Your task to perform on an android device: Open Google Maps and go to "Timeline" Image 0: 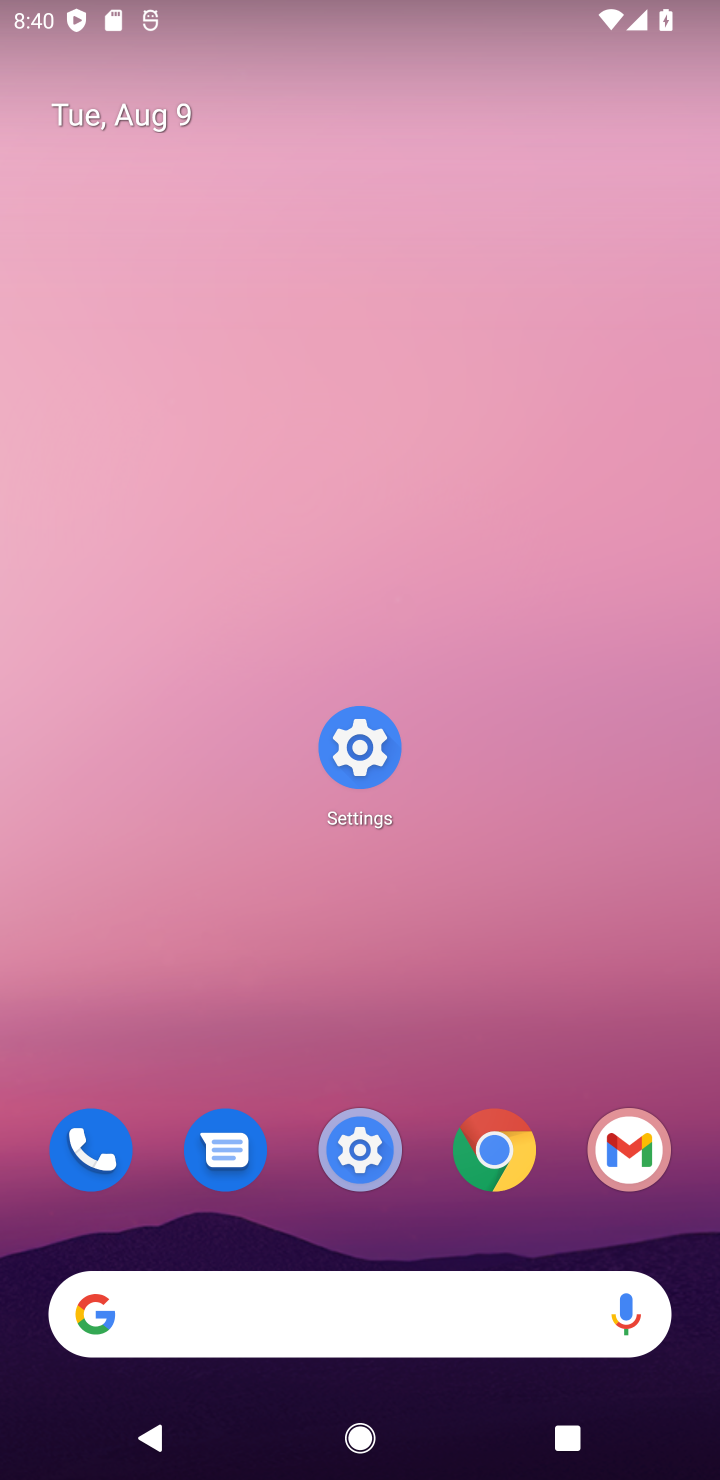
Step 0: press home button
Your task to perform on an android device: Open Google Maps and go to "Timeline" Image 1: 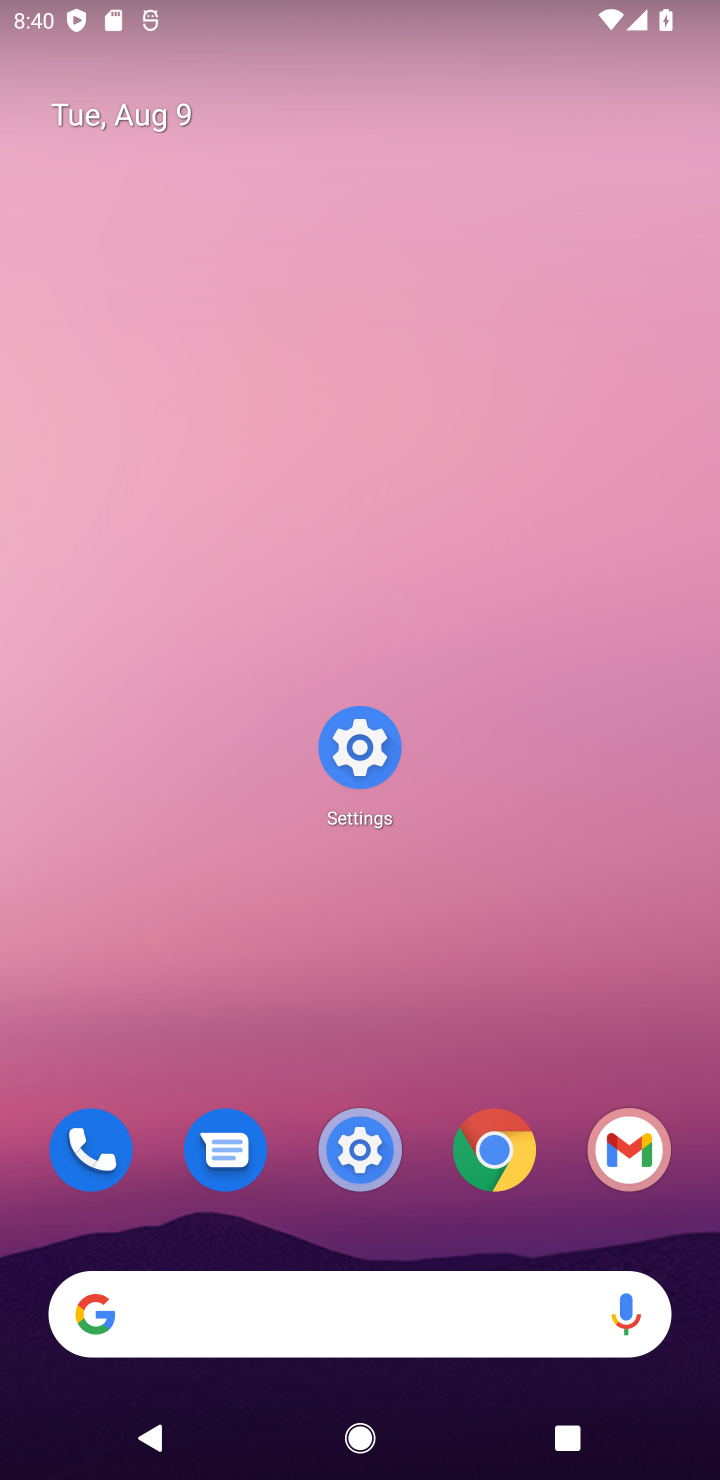
Step 1: drag from (299, 1321) to (595, 236)
Your task to perform on an android device: Open Google Maps and go to "Timeline" Image 2: 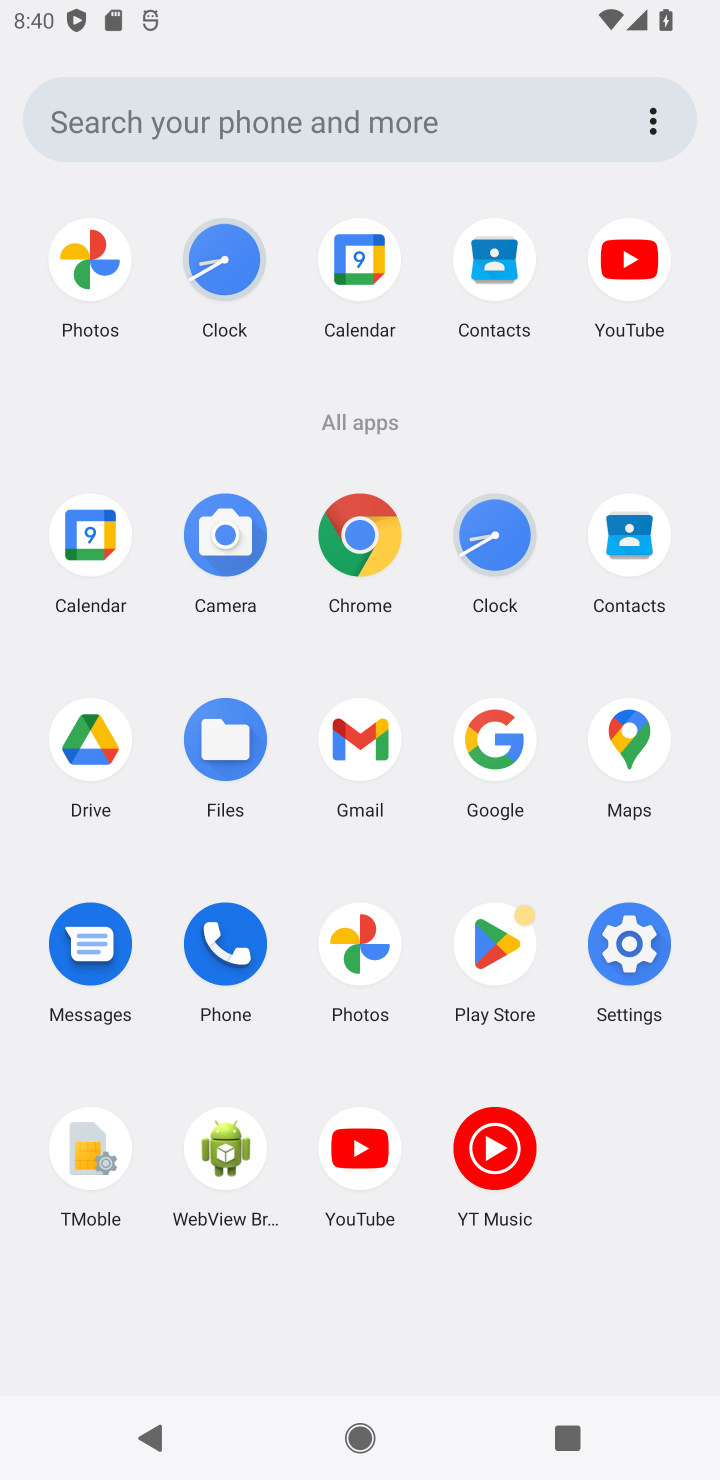
Step 2: click (636, 737)
Your task to perform on an android device: Open Google Maps and go to "Timeline" Image 3: 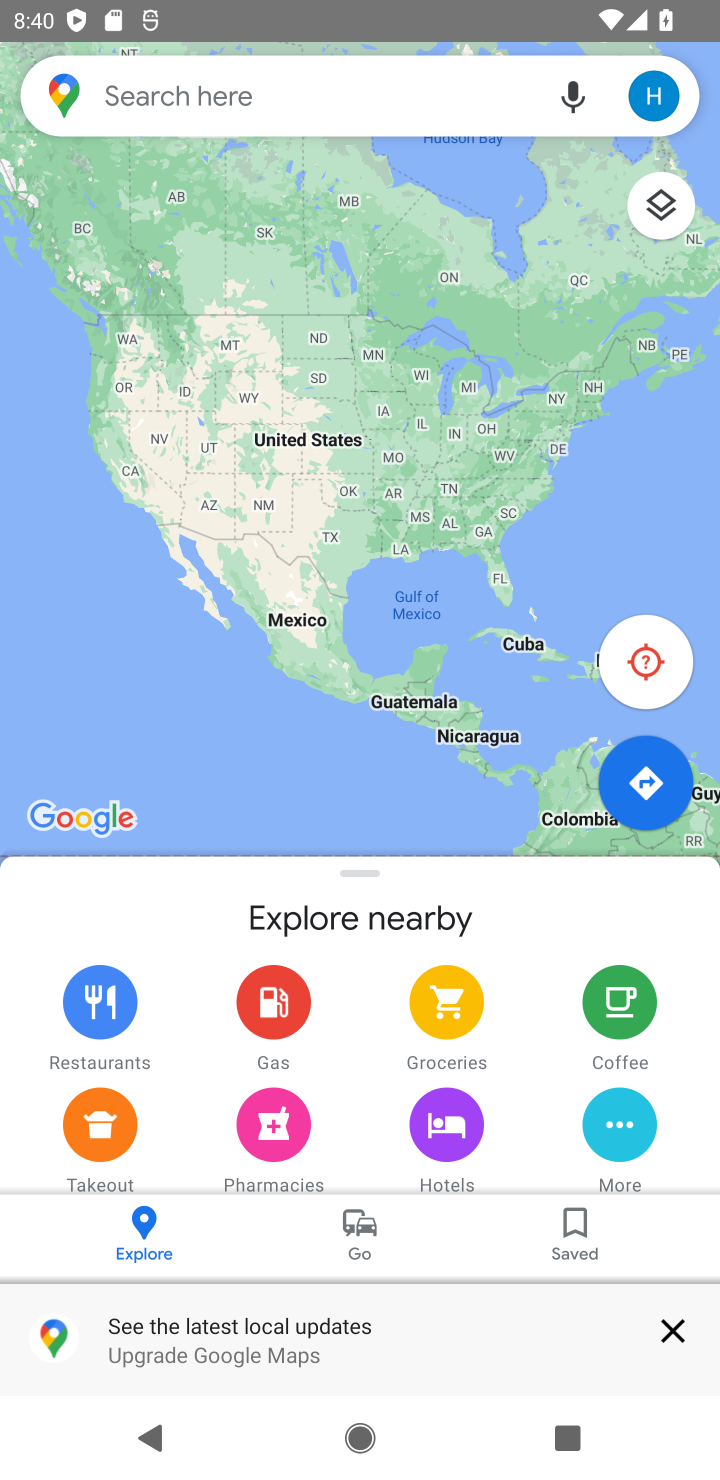
Step 3: click (659, 89)
Your task to perform on an android device: Open Google Maps and go to "Timeline" Image 4: 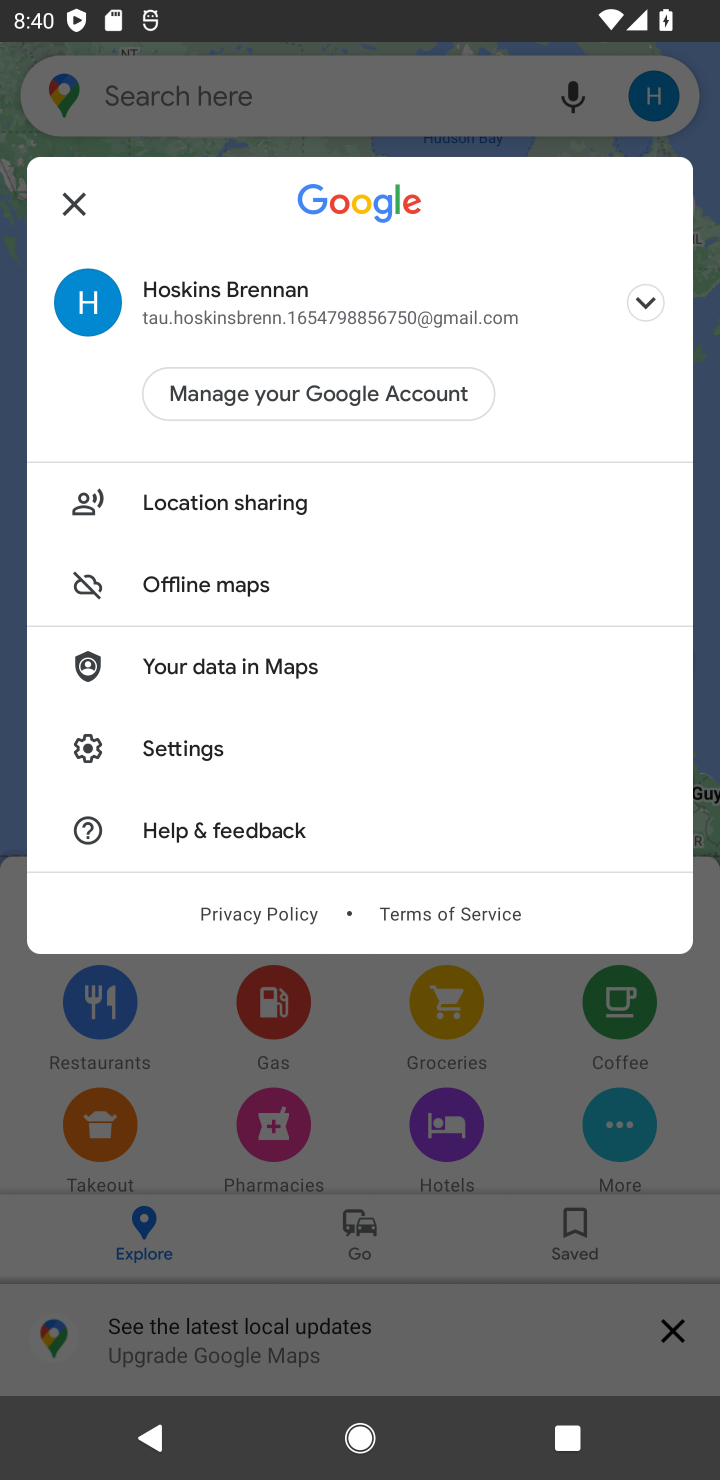
Step 4: task complete